Your task to perform on an android device: Open internet settings Image 0: 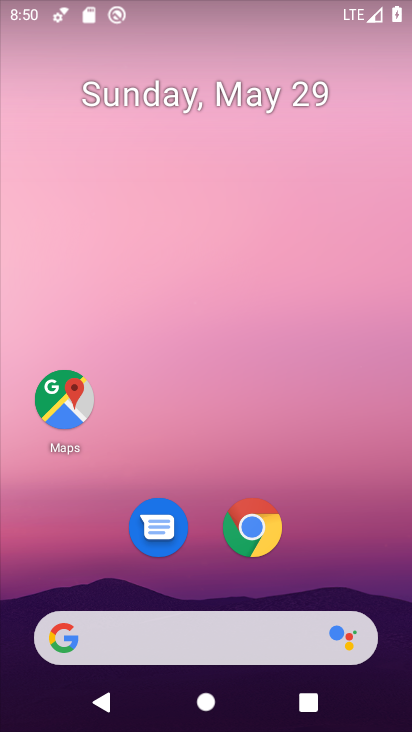
Step 0: press home button
Your task to perform on an android device: Open internet settings Image 1: 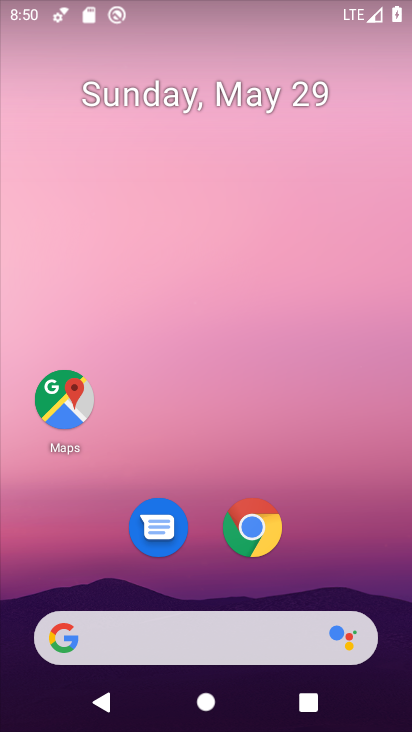
Step 1: drag from (201, 580) to (206, 50)
Your task to perform on an android device: Open internet settings Image 2: 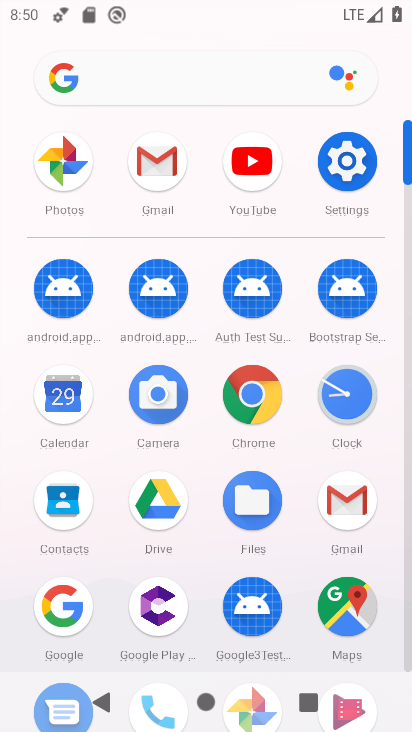
Step 2: click (344, 160)
Your task to perform on an android device: Open internet settings Image 3: 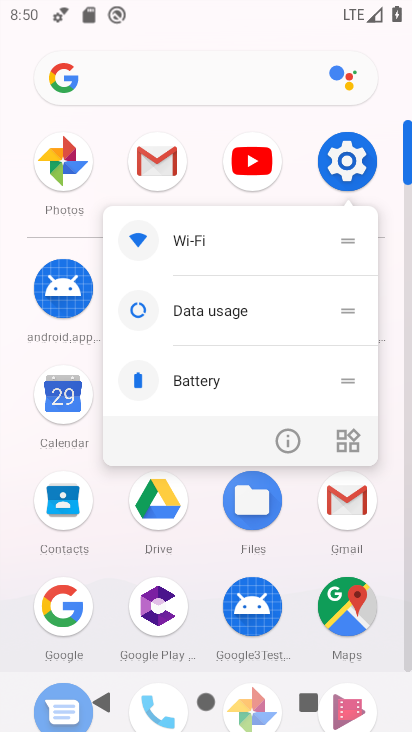
Step 3: click (348, 158)
Your task to perform on an android device: Open internet settings Image 4: 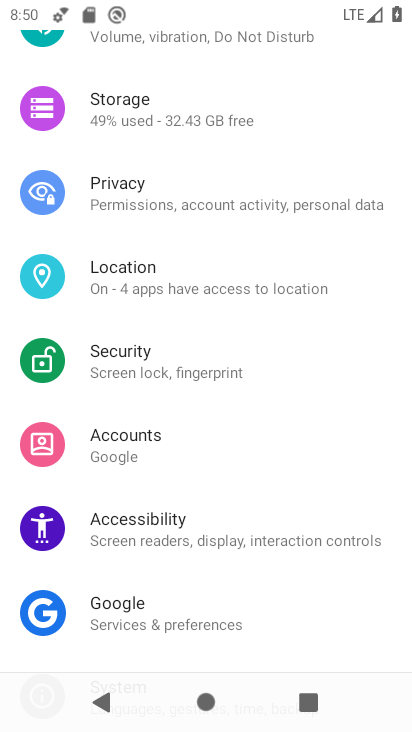
Step 4: drag from (176, 74) to (181, 658)
Your task to perform on an android device: Open internet settings Image 5: 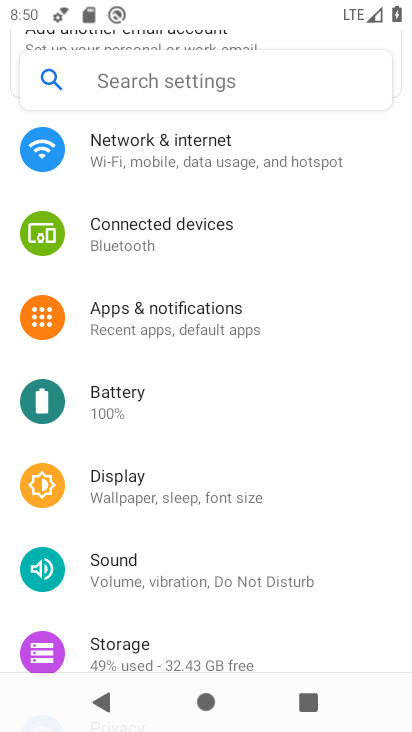
Step 5: click (187, 147)
Your task to perform on an android device: Open internet settings Image 6: 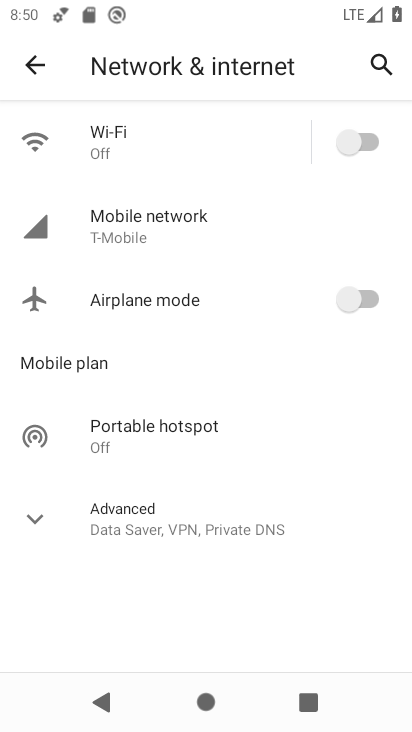
Step 6: click (35, 514)
Your task to perform on an android device: Open internet settings Image 7: 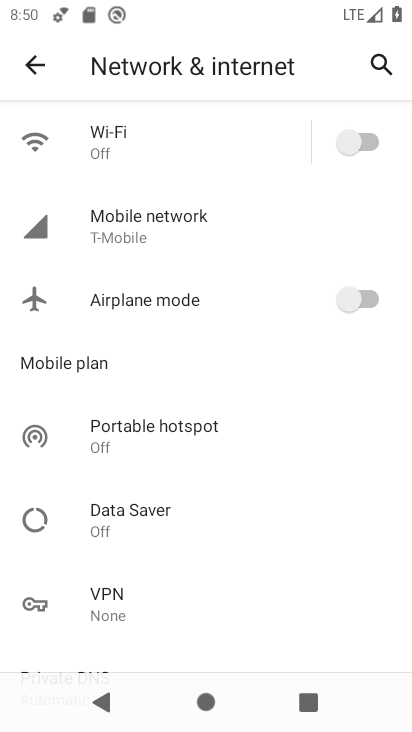
Step 7: task complete